Your task to perform on an android device: open sync settings in chrome Image 0: 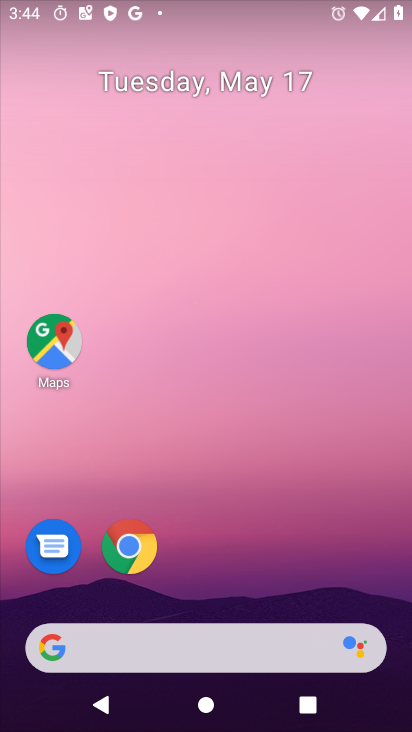
Step 0: click (139, 548)
Your task to perform on an android device: open sync settings in chrome Image 1: 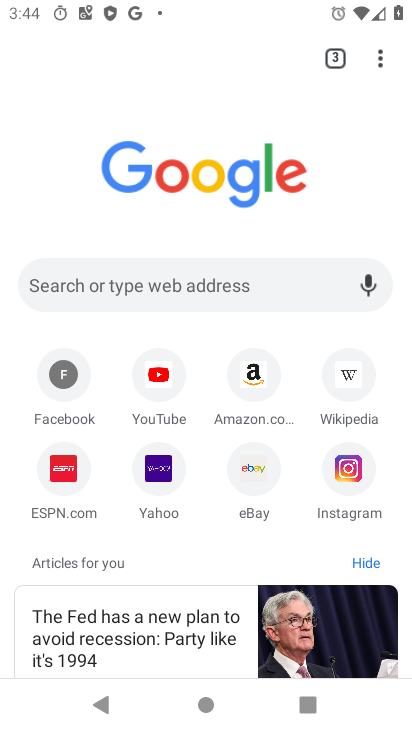
Step 1: click (383, 41)
Your task to perform on an android device: open sync settings in chrome Image 2: 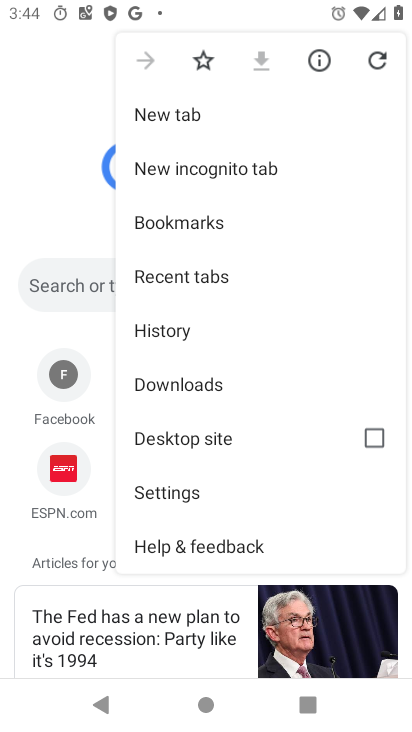
Step 2: click (182, 490)
Your task to perform on an android device: open sync settings in chrome Image 3: 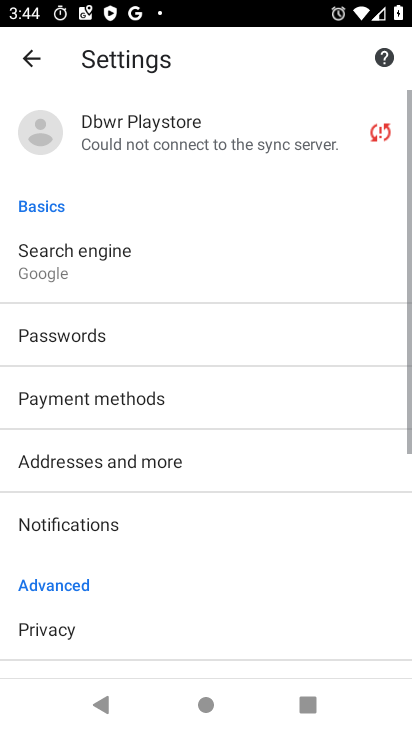
Step 3: drag from (216, 608) to (205, 325)
Your task to perform on an android device: open sync settings in chrome Image 4: 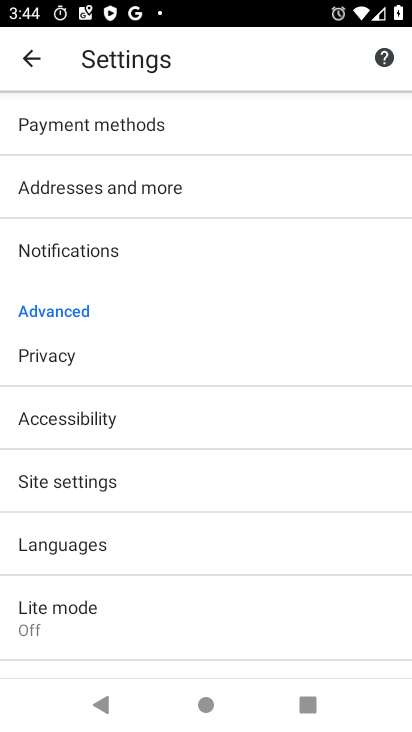
Step 4: click (51, 476)
Your task to perform on an android device: open sync settings in chrome Image 5: 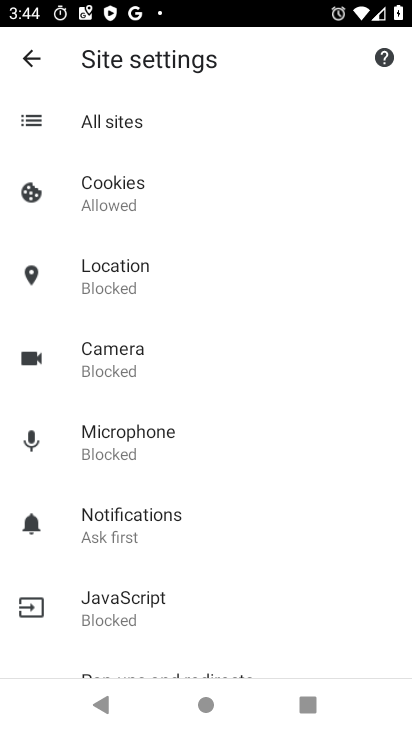
Step 5: drag from (207, 621) to (192, 362)
Your task to perform on an android device: open sync settings in chrome Image 6: 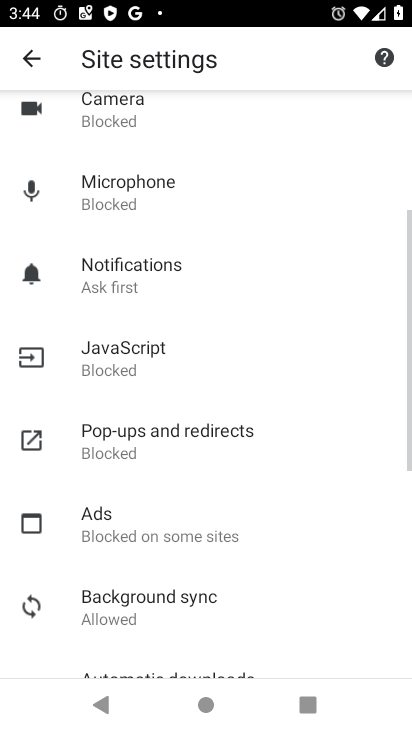
Step 6: click (130, 606)
Your task to perform on an android device: open sync settings in chrome Image 7: 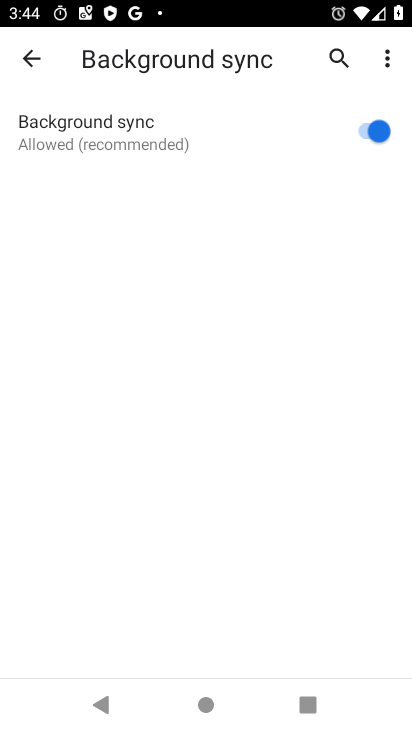
Step 7: task complete